Your task to perform on an android device: Is it going to rain this weekend? Image 0: 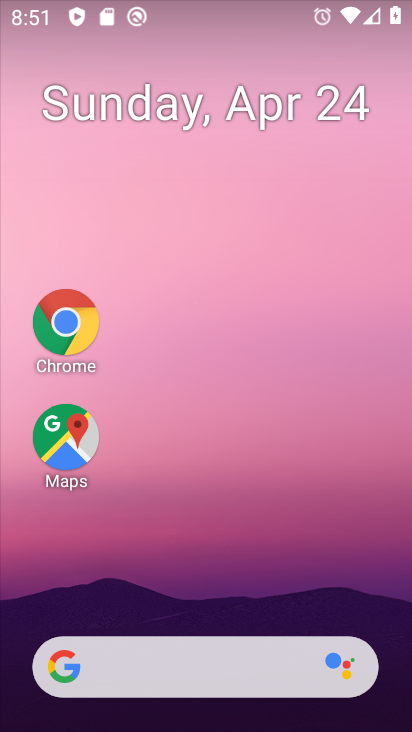
Step 0: click (262, 570)
Your task to perform on an android device: Is it going to rain this weekend? Image 1: 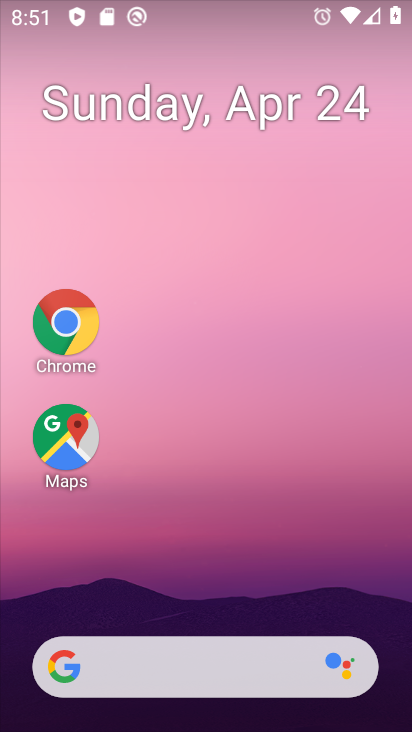
Step 1: click (166, 673)
Your task to perform on an android device: Is it going to rain this weekend? Image 2: 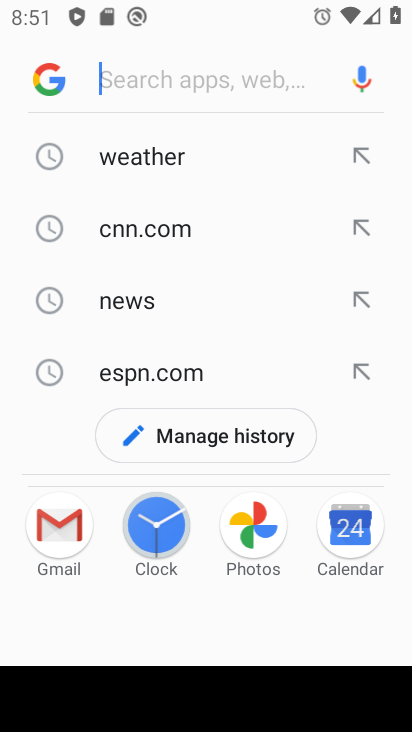
Step 2: click (146, 150)
Your task to perform on an android device: Is it going to rain this weekend? Image 3: 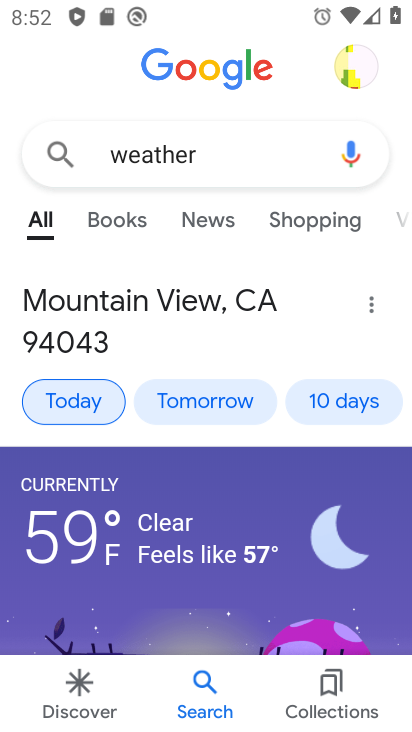
Step 3: click (329, 411)
Your task to perform on an android device: Is it going to rain this weekend? Image 4: 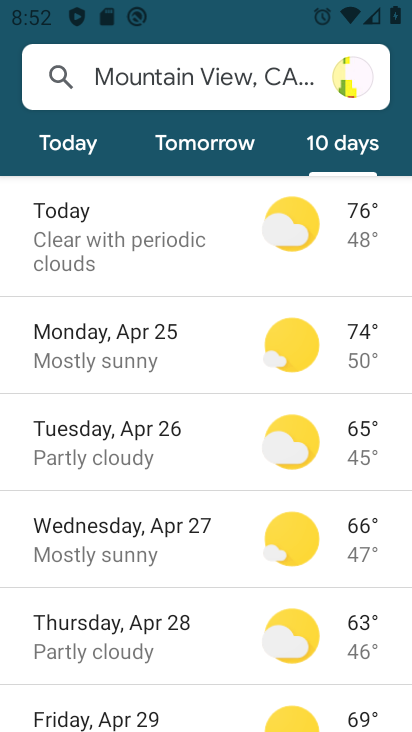
Step 4: task complete